Your task to perform on an android device: What's the weather? Image 0: 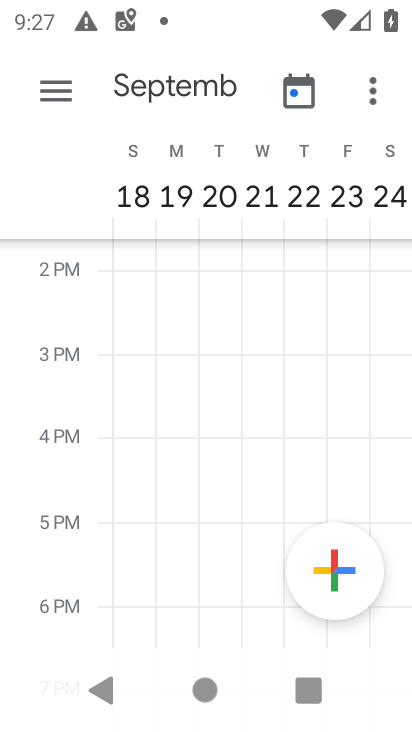
Step 0: press home button
Your task to perform on an android device: What's the weather? Image 1: 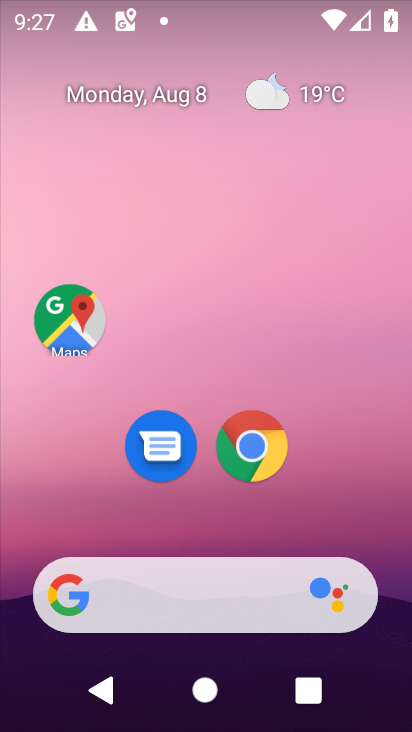
Step 1: click (304, 89)
Your task to perform on an android device: What's the weather? Image 2: 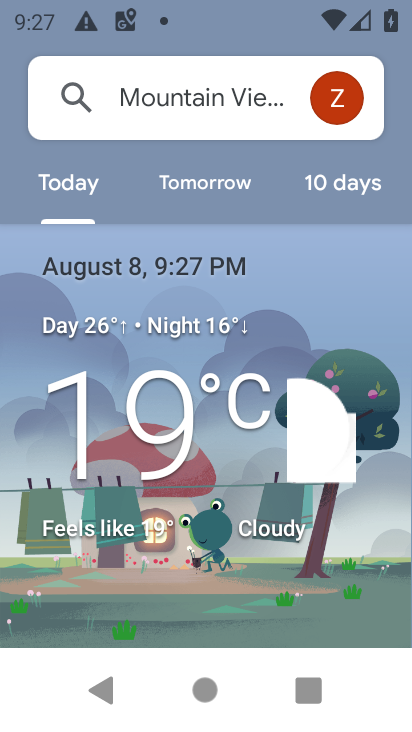
Step 2: task complete